Your task to perform on an android device: toggle wifi Image 0: 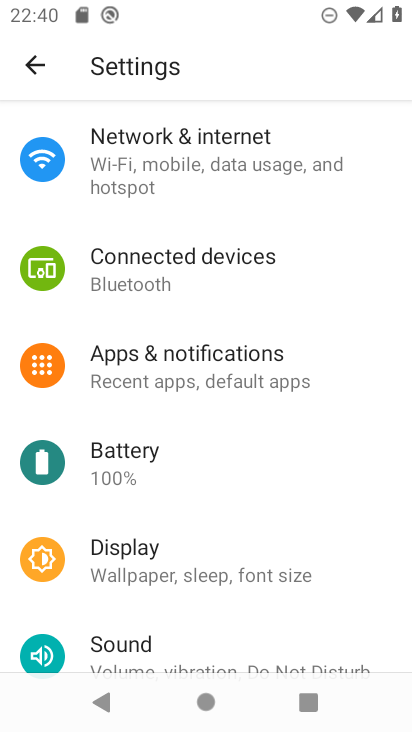
Step 0: press home button
Your task to perform on an android device: toggle wifi Image 1: 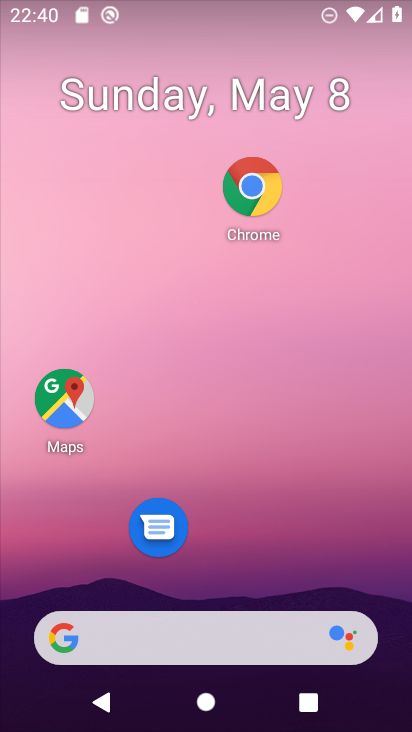
Step 1: drag from (254, 524) to (275, 260)
Your task to perform on an android device: toggle wifi Image 2: 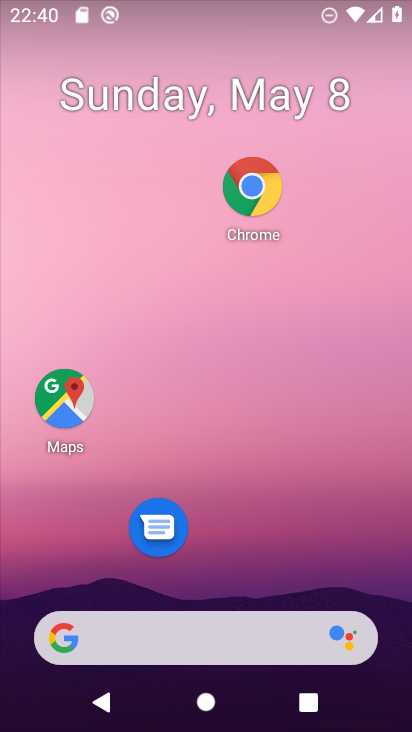
Step 2: drag from (258, 499) to (296, 219)
Your task to perform on an android device: toggle wifi Image 3: 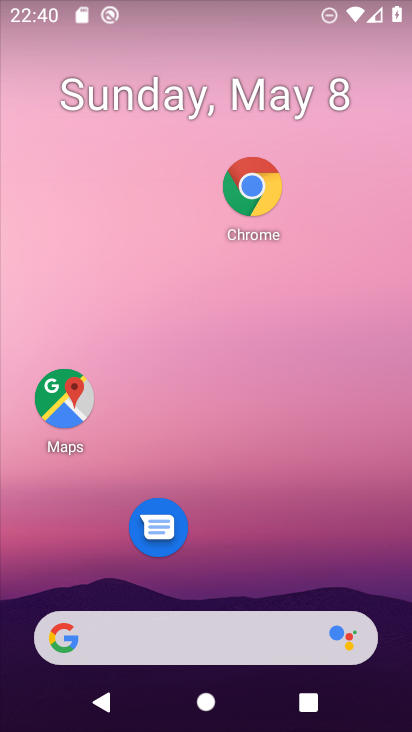
Step 3: drag from (260, 482) to (305, 257)
Your task to perform on an android device: toggle wifi Image 4: 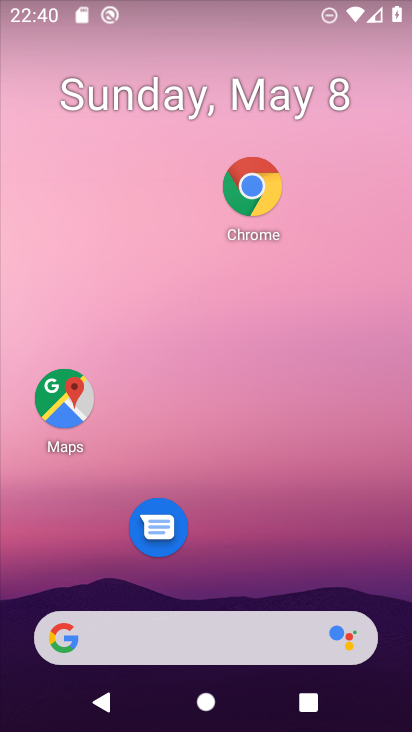
Step 4: drag from (275, 557) to (348, 76)
Your task to perform on an android device: toggle wifi Image 5: 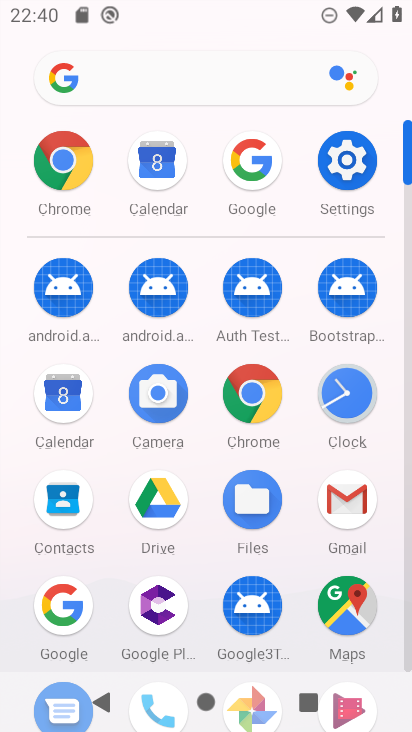
Step 5: click (342, 160)
Your task to perform on an android device: toggle wifi Image 6: 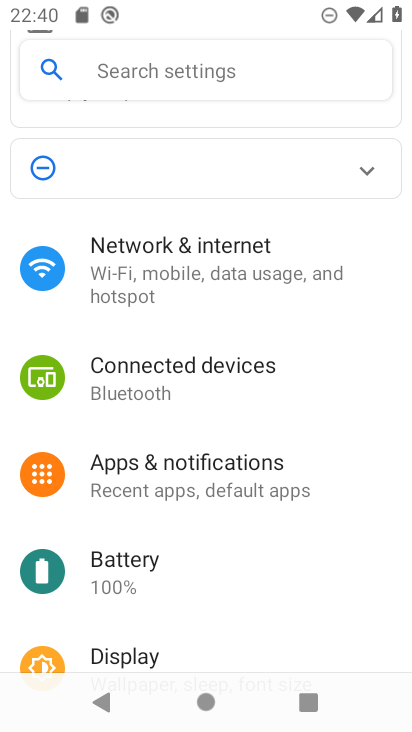
Step 6: click (207, 267)
Your task to perform on an android device: toggle wifi Image 7: 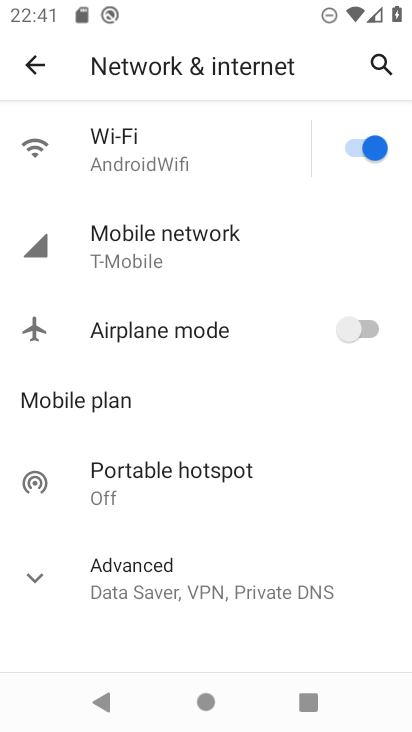
Step 7: task complete